Your task to perform on an android device: show emergency info Image 0: 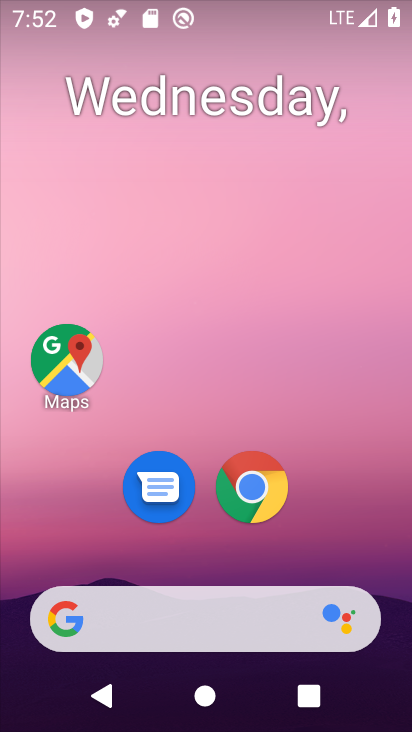
Step 0: drag from (70, 538) to (410, 106)
Your task to perform on an android device: show emergency info Image 1: 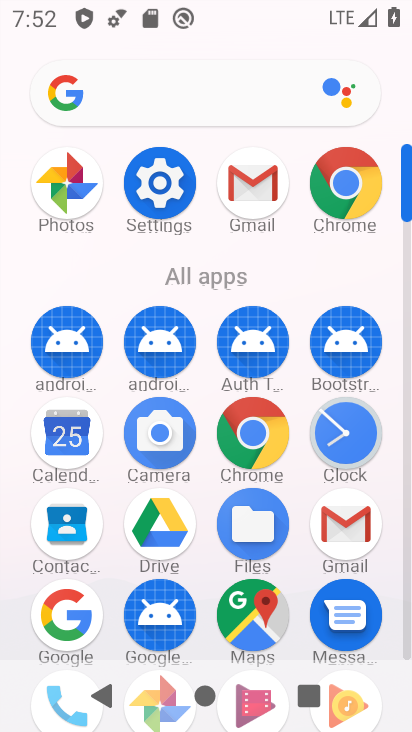
Step 1: click (168, 248)
Your task to perform on an android device: show emergency info Image 2: 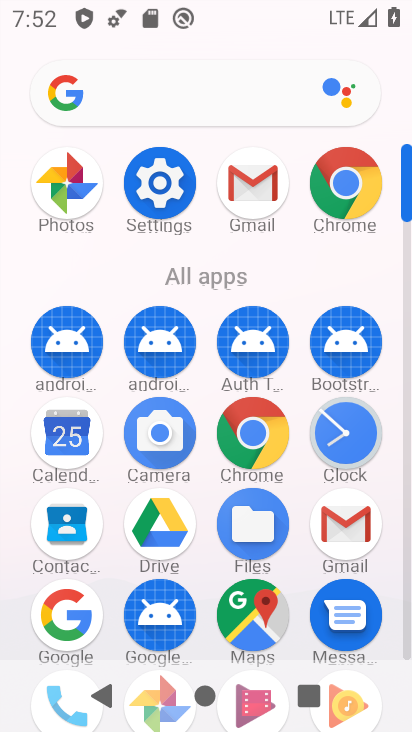
Step 2: click (159, 169)
Your task to perform on an android device: show emergency info Image 3: 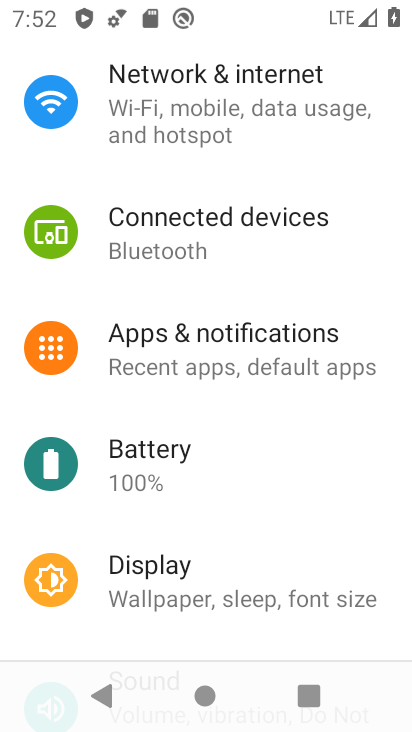
Step 3: drag from (6, 551) to (355, 37)
Your task to perform on an android device: show emergency info Image 4: 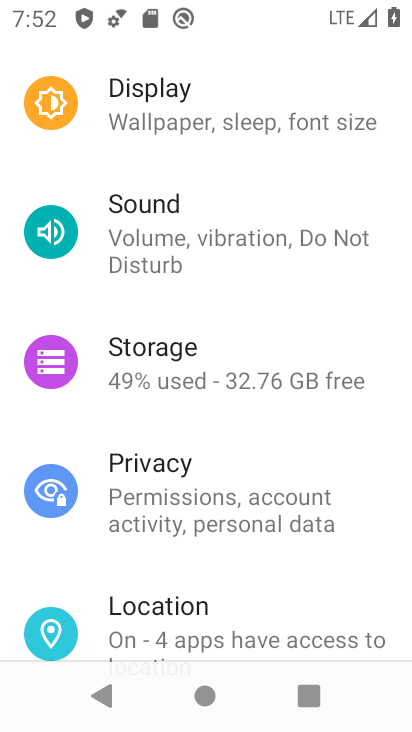
Step 4: drag from (75, 549) to (405, 127)
Your task to perform on an android device: show emergency info Image 5: 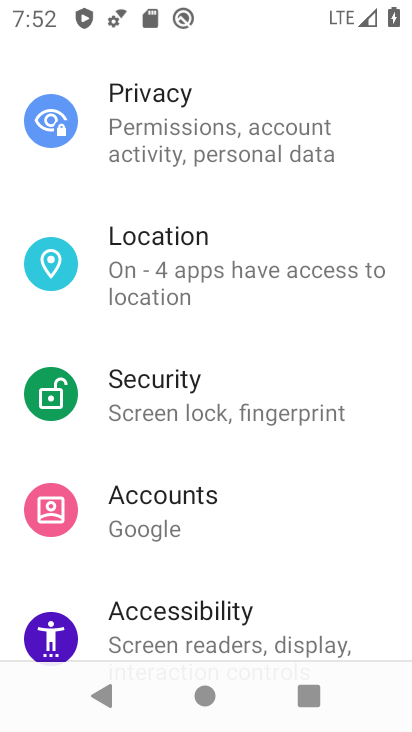
Step 5: drag from (98, 523) to (353, 171)
Your task to perform on an android device: show emergency info Image 6: 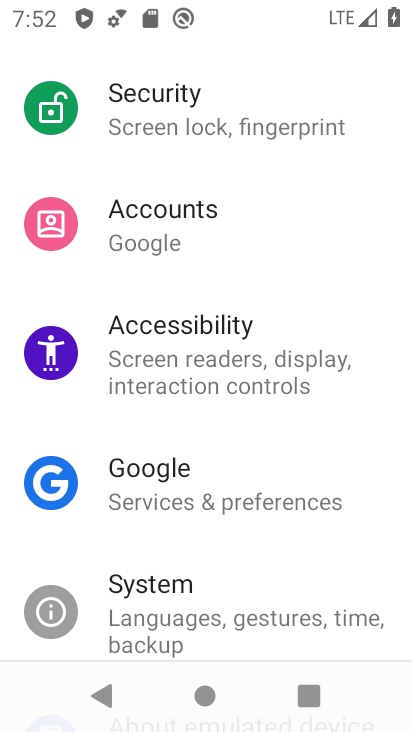
Step 6: drag from (5, 558) to (300, 199)
Your task to perform on an android device: show emergency info Image 7: 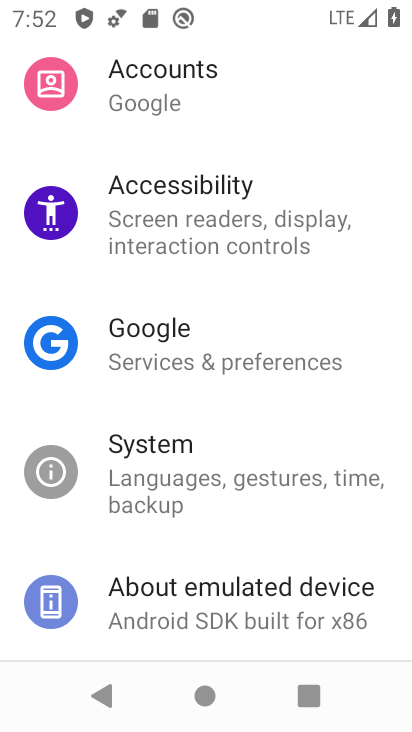
Step 7: click (192, 605)
Your task to perform on an android device: show emergency info Image 8: 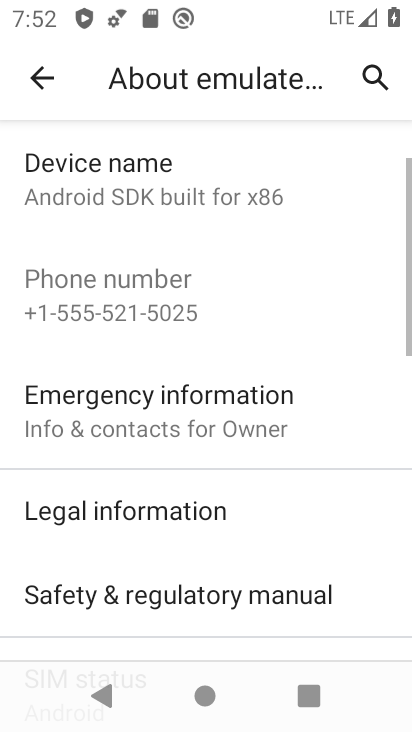
Step 8: drag from (55, 404) to (75, 373)
Your task to perform on an android device: show emergency info Image 9: 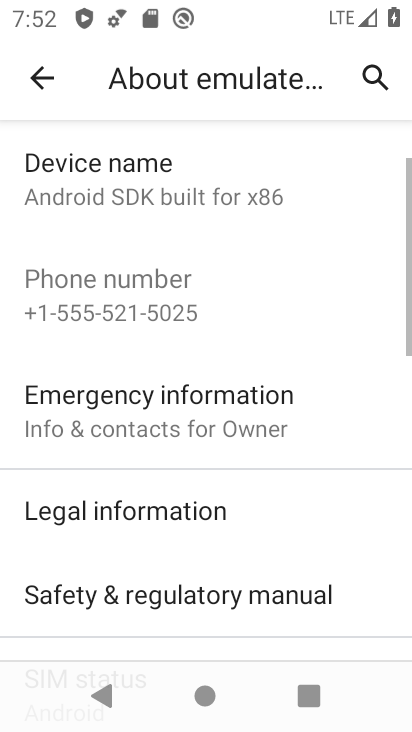
Step 9: click (81, 408)
Your task to perform on an android device: show emergency info Image 10: 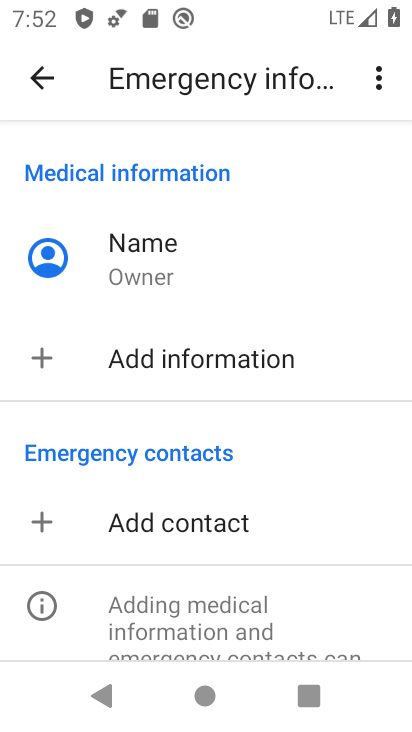
Step 10: task complete